Your task to perform on an android device: Go to accessibility settings Image 0: 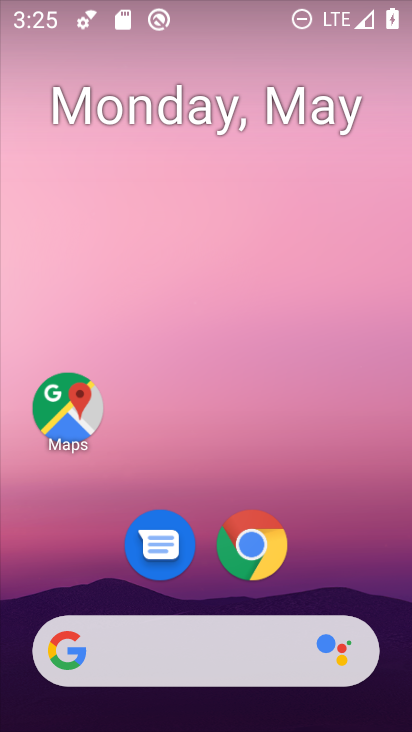
Step 0: drag from (300, 573) to (302, 68)
Your task to perform on an android device: Go to accessibility settings Image 1: 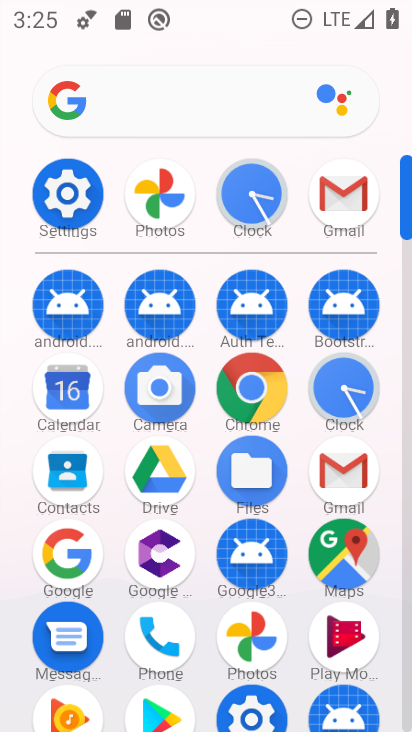
Step 1: click (64, 221)
Your task to perform on an android device: Go to accessibility settings Image 2: 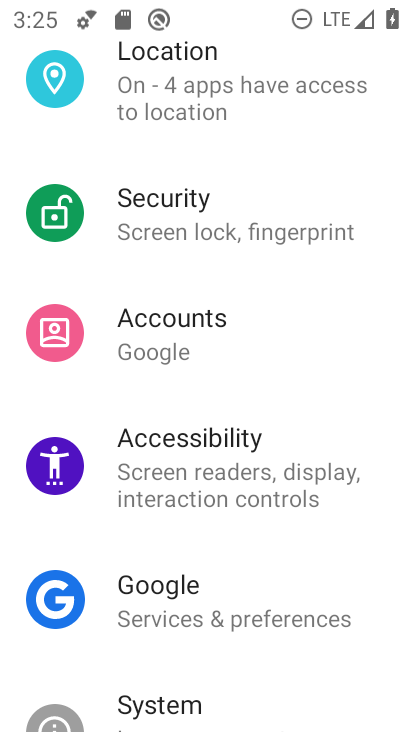
Step 2: click (240, 471)
Your task to perform on an android device: Go to accessibility settings Image 3: 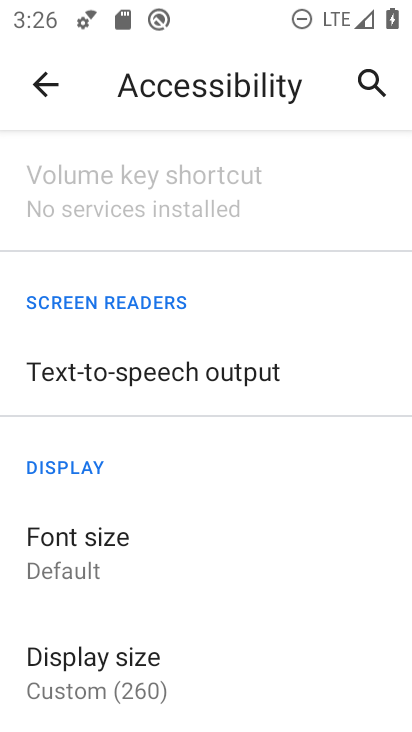
Step 3: task complete